Your task to perform on an android device: toggle javascript in the chrome app Image 0: 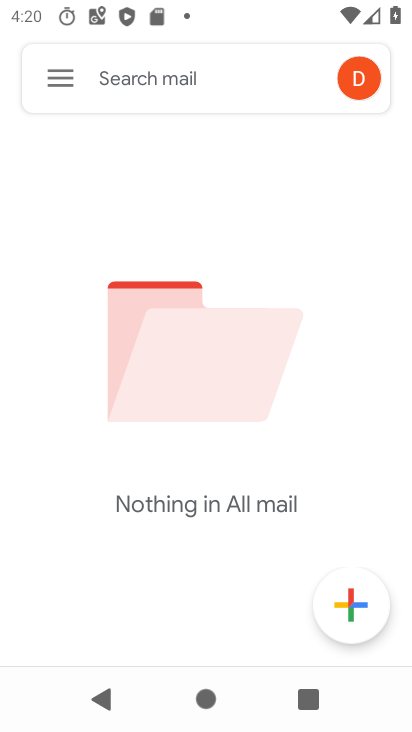
Step 0: press home button
Your task to perform on an android device: toggle javascript in the chrome app Image 1: 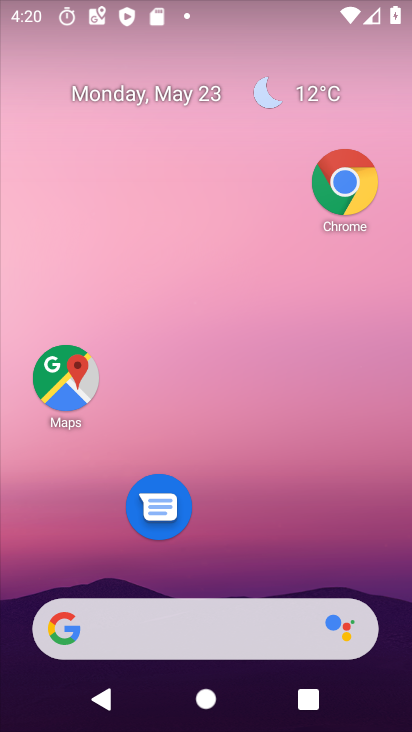
Step 1: click (345, 178)
Your task to perform on an android device: toggle javascript in the chrome app Image 2: 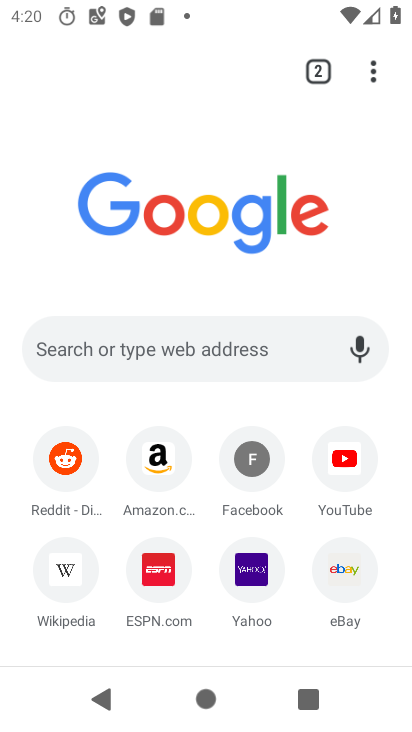
Step 2: click (383, 76)
Your task to perform on an android device: toggle javascript in the chrome app Image 3: 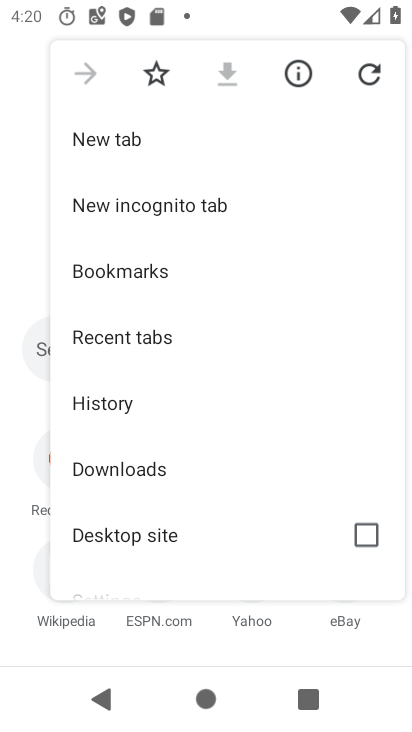
Step 3: drag from (96, 568) to (176, 92)
Your task to perform on an android device: toggle javascript in the chrome app Image 4: 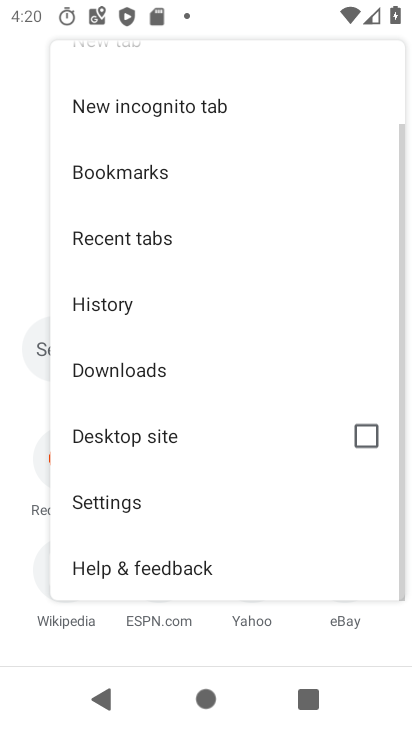
Step 4: click (89, 499)
Your task to perform on an android device: toggle javascript in the chrome app Image 5: 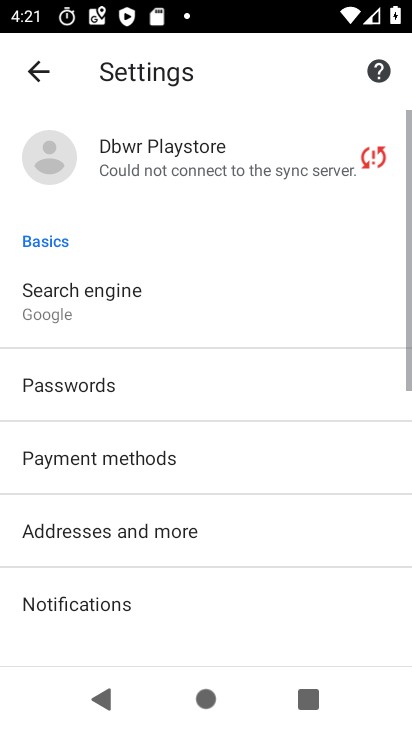
Step 5: drag from (89, 499) to (127, 157)
Your task to perform on an android device: toggle javascript in the chrome app Image 6: 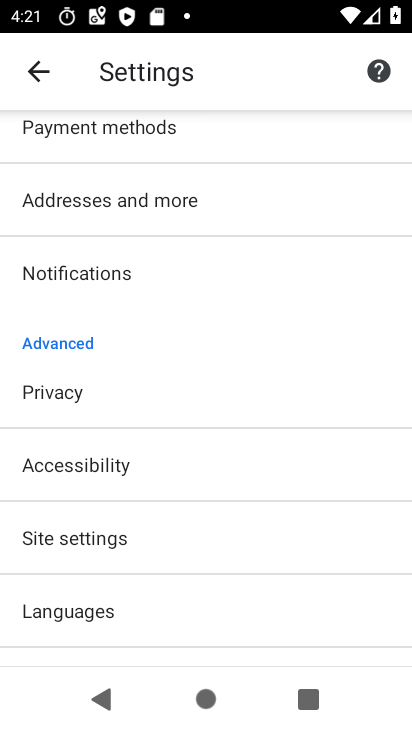
Step 6: click (126, 549)
Your task to perform on an android device: toggle javascript in the chrome app Image 7: 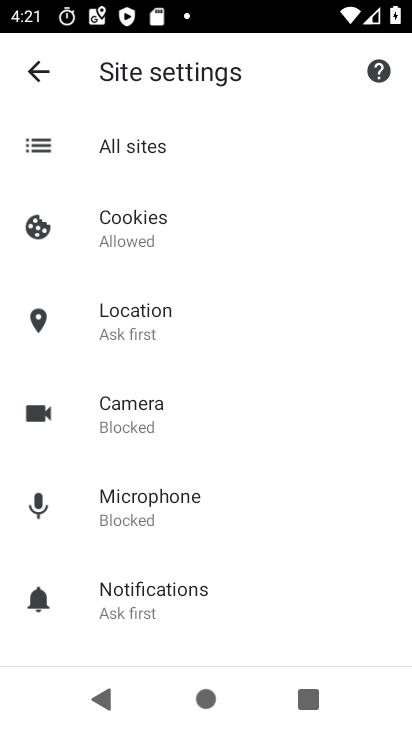
Step 7: drag from (126, 549) to (181, 196)
Your task to perform on an android device: toggle javascript in the chrome app Image 8: 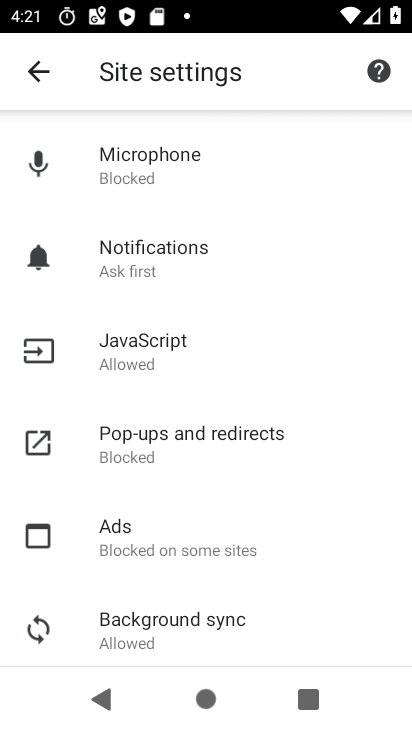
Step 8: click (120, 351)
Your task to perform on an android device: toggle javascript in the chrome app Image 9: 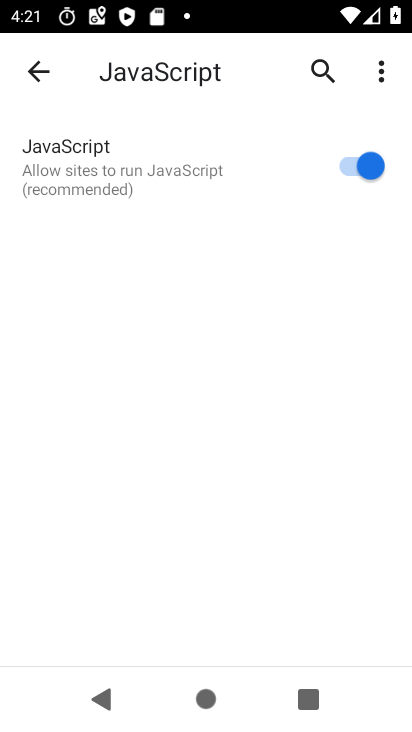
Step 9: click (362, 169)
Your task to perform on an android device: toggle javascript in the chrome app Image 10: 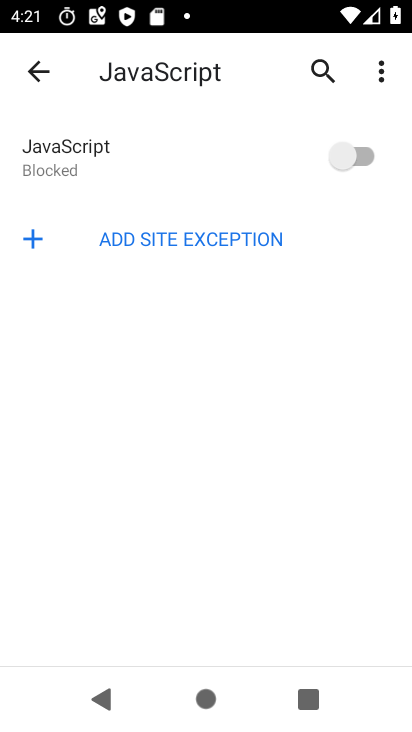
Step 10: click (362, 169)
Your task to perform on an android device: toggle javascript in the chrome app Image 11: 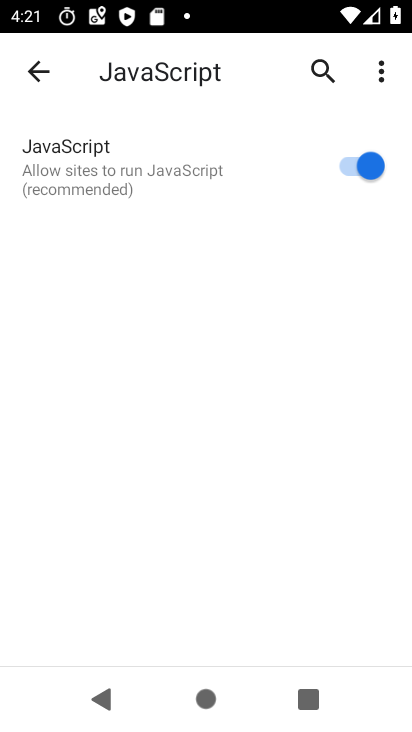
Step 11: task complete